Your task to perform on an android device: Go to location settings Image 0: 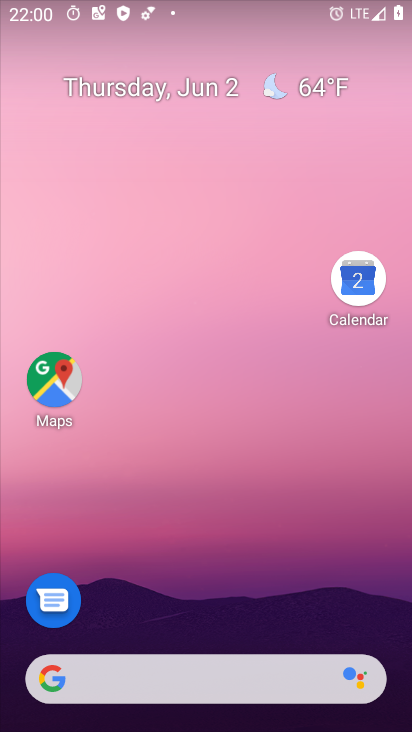
Step 0: drag from (193, 578) to (203, 44)
Your task to perform on an android device: Go to location settings Image 1: 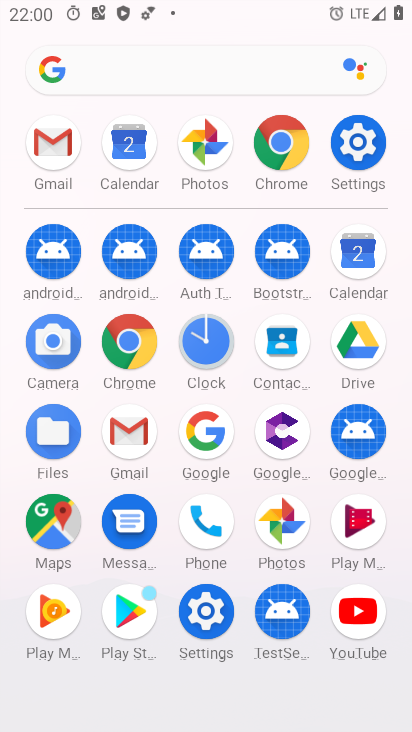
Step 1: click (360, 143)
Your task to perform on an android device: Go to location settings Image 2: 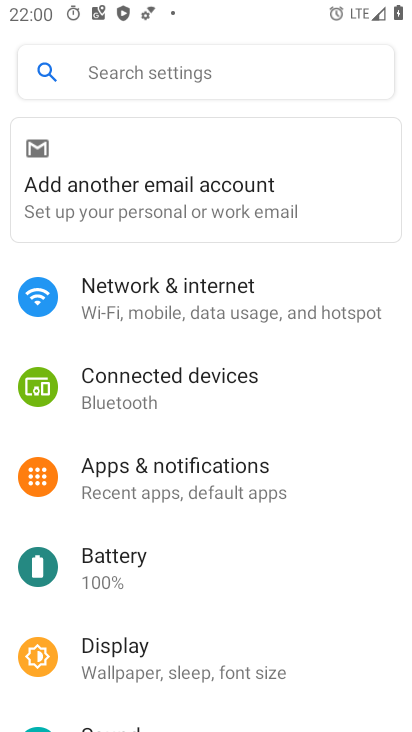
Step 2: drag from (227, 630) to (164, 126)
Your task to perform on an android device: Go to location settings Image 3: 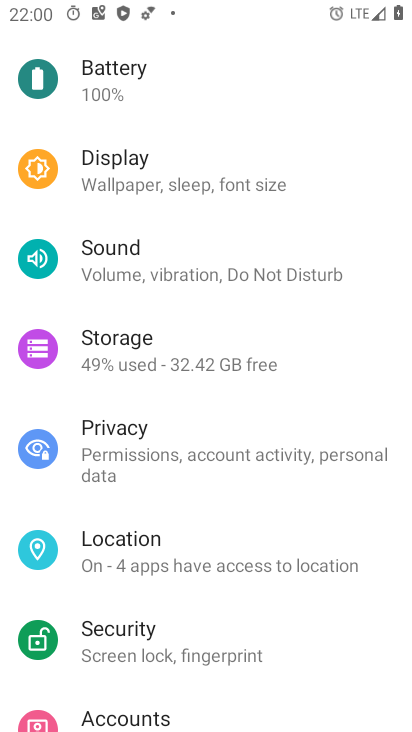
Step 3: click (145, 544)
Your task to perform on an android device: Go to location settings Image 4: 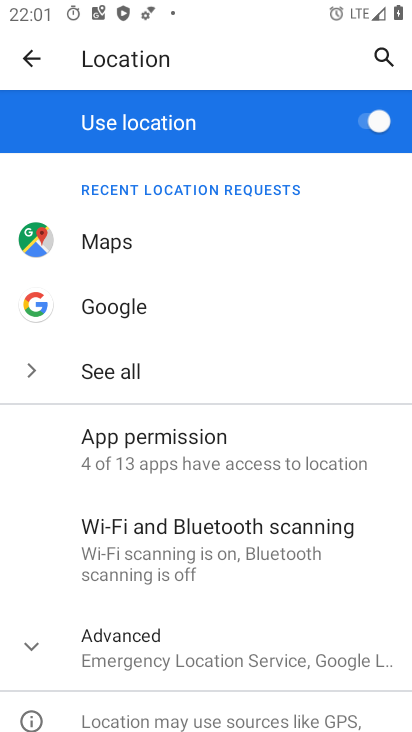
Step 4: task complete